Your task to perform on an android device: visit the assistant section in the google photos Image 0: 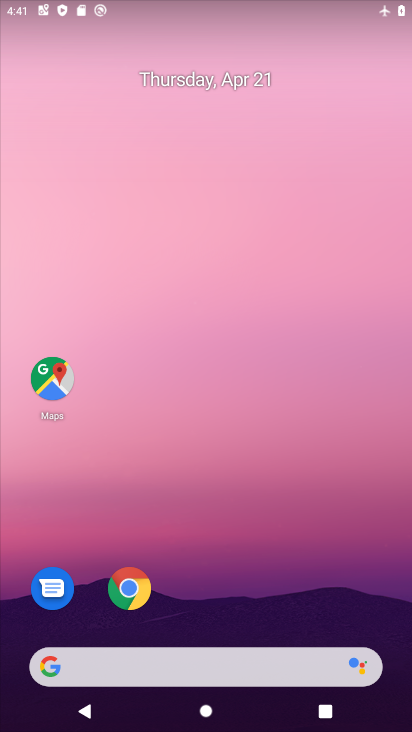
Step 0: drag from (204, 538) to (286, 51)
Your task to perform on an android device: visit the assistant section in the google photos Image 1: 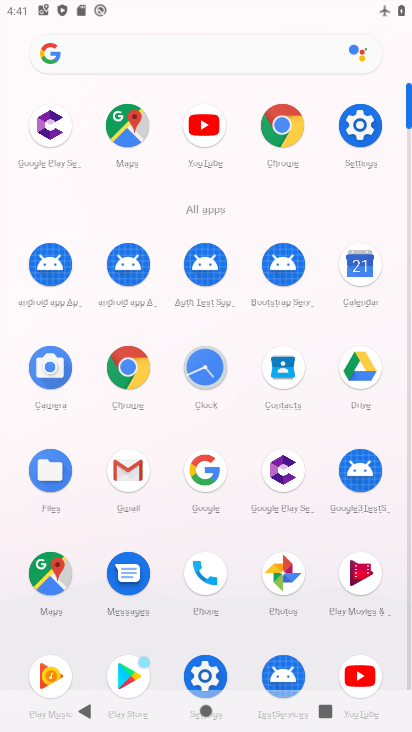
Step 1: click (300, 567)
Your task to perform on an android device: visit the assistant section in the google photos Image 2: 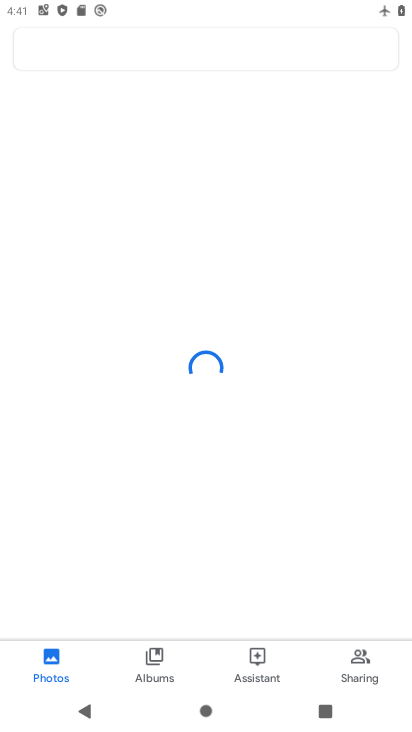
Step 2: click (249, 662)
Your task to perform on an android device: visit the assistant section in the google photos Image 3: 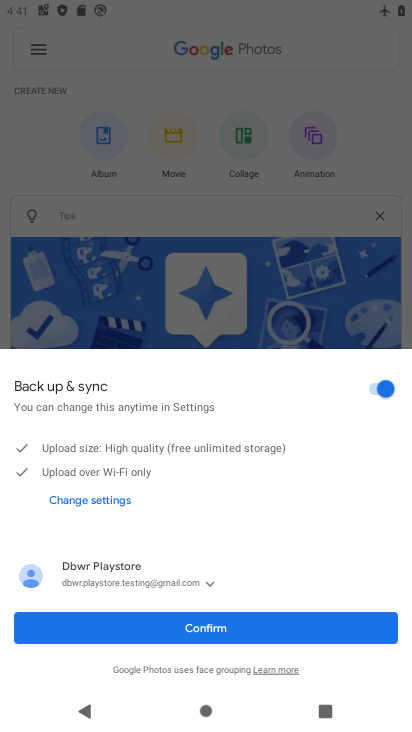
Step 3: click (201, 625)
Your task to perform on an android device: visit the assistant section in the google photos Image 4: 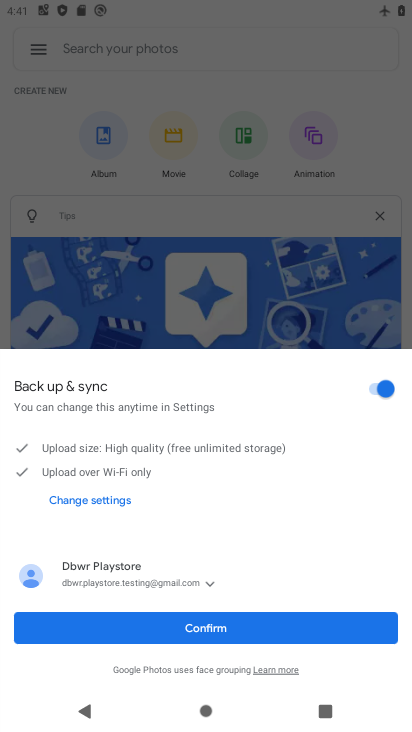
Step 4: click (152, 621)
Your task to perform on an android device: visit the assistant section in the google photos Image 5: 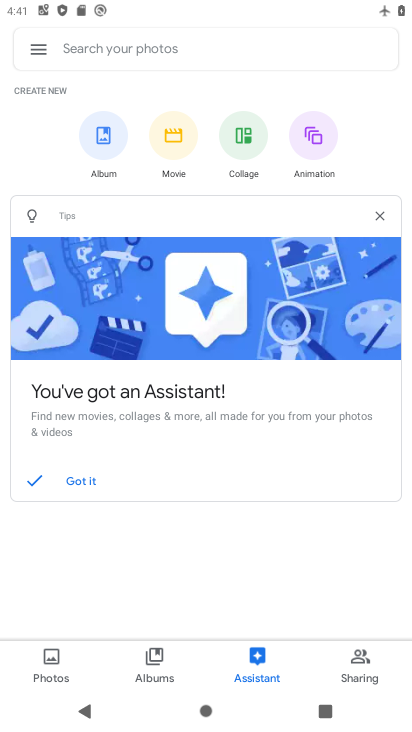
Step 5: task complete